Your task to perform on an android device: Open calendar and show me the second week of next month Image 0: 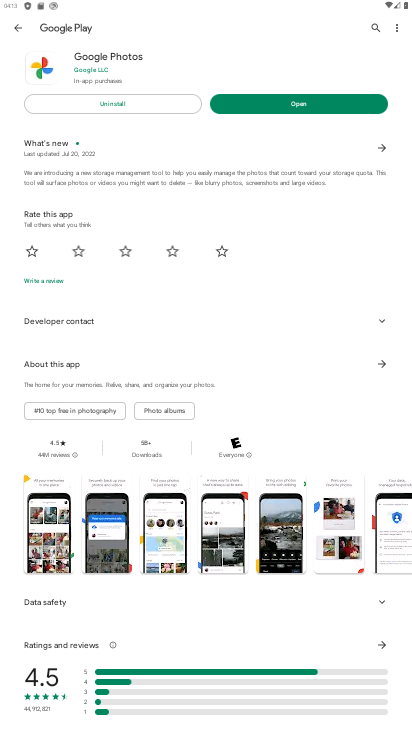
Step 0: press home button
Your task to perform on an android device: Open calendar and show me the second week of next month Image 1: 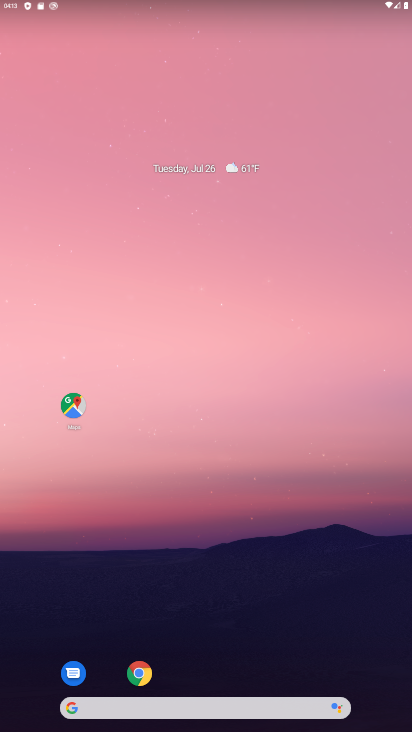
Step 1: drag from (211, 669) to (226, 197)
Your task to perform on an android device: Open calendar and show me the second week of next month Image 2: 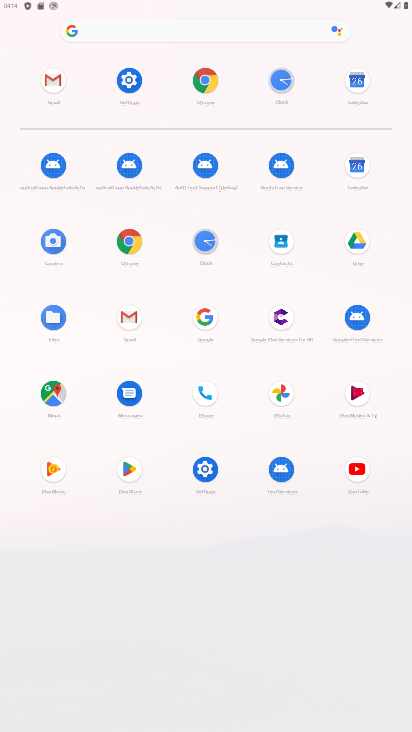
Step 2: click (356, 73)
Your task to perform on an android device: Open calendar and show me the second week of next month Image 3: 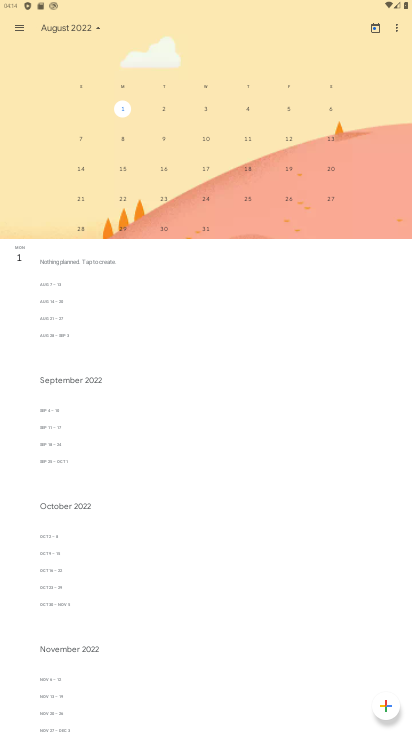
Step 3: click (17, 32)
Your task to perform on an android device: Open calendar and show me the second week of next month Image 4: 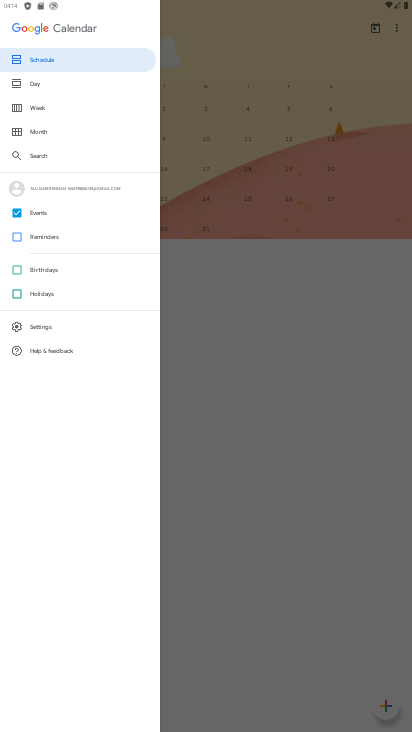
Step 4: click (55, 105)
Your task to perform on an android device: Open calendar and show me the second week of next month Image 5: 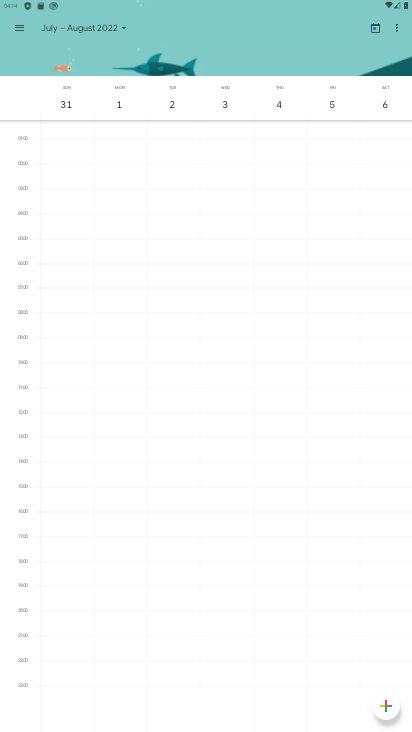
Step 5: click (119, 24)
Your task to perform on an android device: Open calendar and show me the second week of next month Image 6: 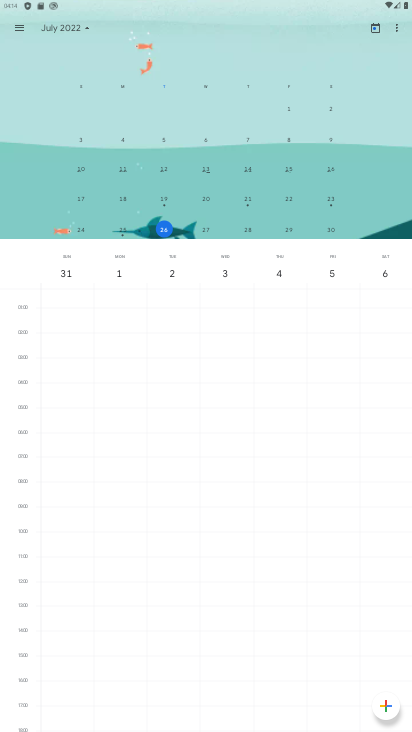
Step 6: drag from (349, 149) to (37, 145)
Your task to perform on an android device: Open calendar and show me the second week of next month Image 7: 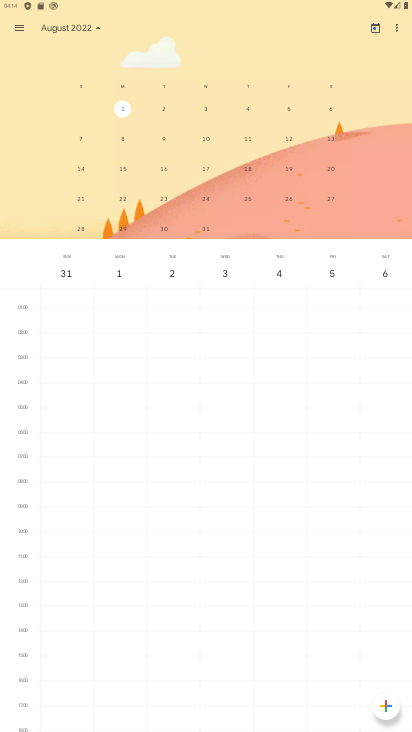
Step 7: click (76, 140)
Your task to perform on an android device: Open calendar and show me the second week of next month Image 8: 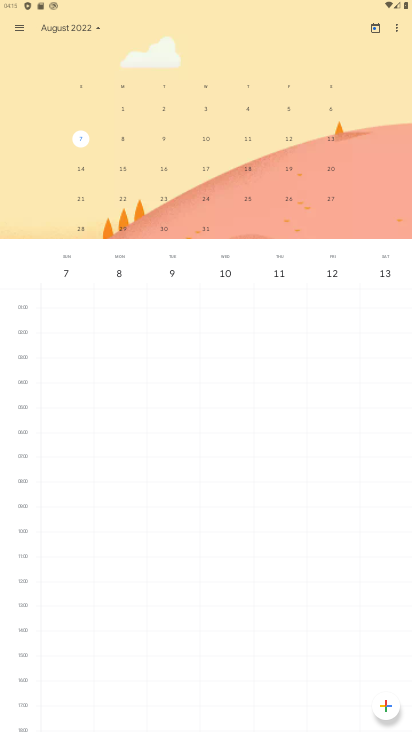
Step 8: task complete